Your task to perform on an android device: Show me popular videos on Youtube Image 0: 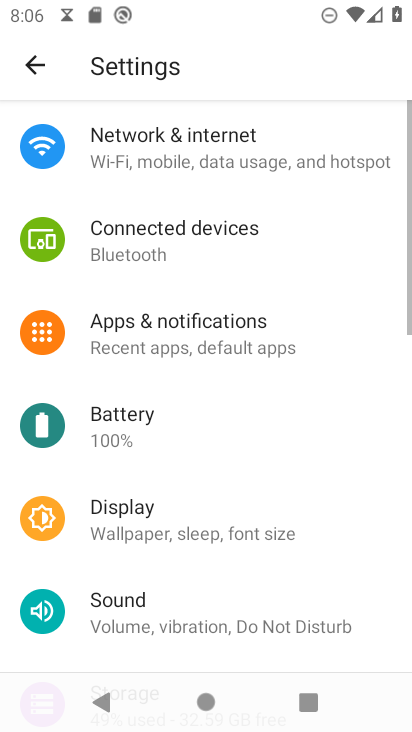
Step 0: press back button
Your task to perform on an android device: Show me popular videos on Youtube Image 1: 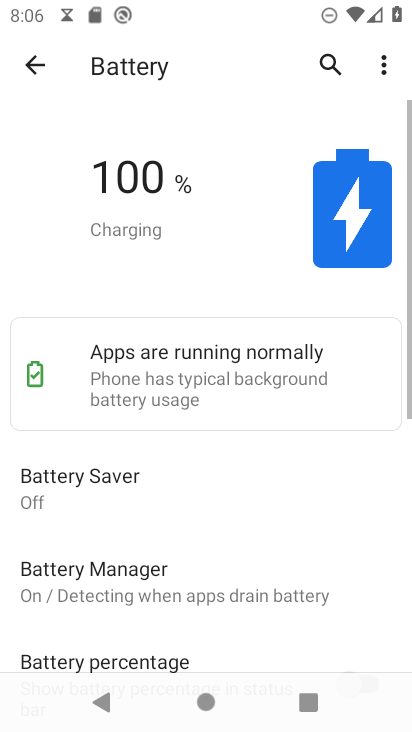
Step 1: press home button
Your task to perform on an android device: Show me popular videos on Youtube Image 2: 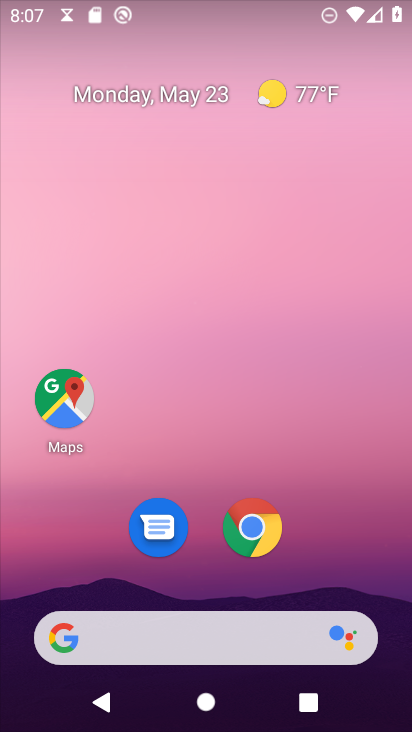
Step 2: drag from (273, 651) to (247, 46)
Your task to perform on an android device: Show me popular videos on Youtube Image 3: 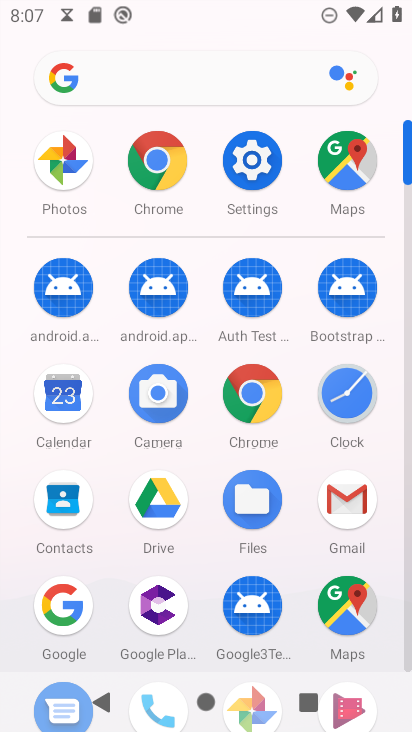
Step 3: drag from (291, 543) to (257, 198)
Your task to perform on an android device: Show me popular videos on Youtube Image 4: 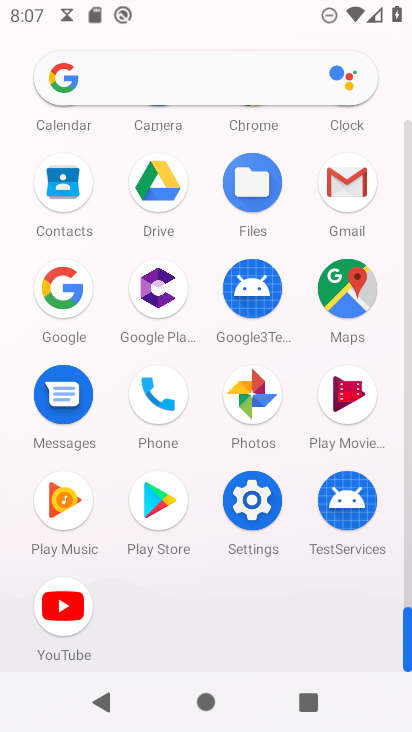
Step 4: click (73, 606)
Your task to perform on an android device: Show me popular videos on Youtube Image 5: 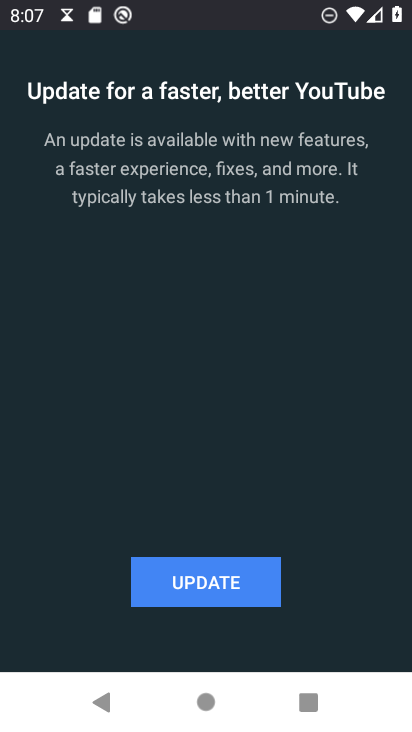
Step 5: click (203, 578)
Your task to perform on an android device: Show me popular videos on Youtube Image 6: 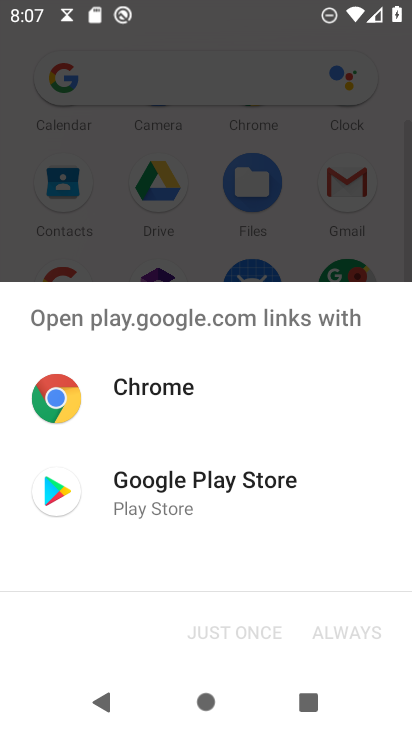
Step 6: click (234, 482)
Your task to perform on an android device: Show me popular videos on Youtube Image 7: 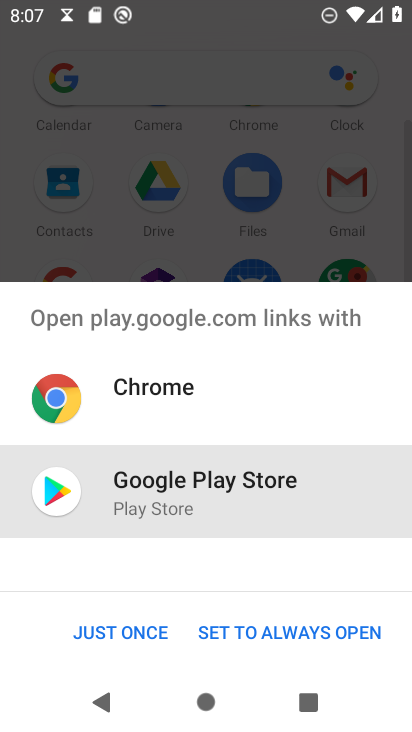
Step 7: click (108, 626)
Your task to perform on an android device: Show me popular videos on Youtube Image 8: 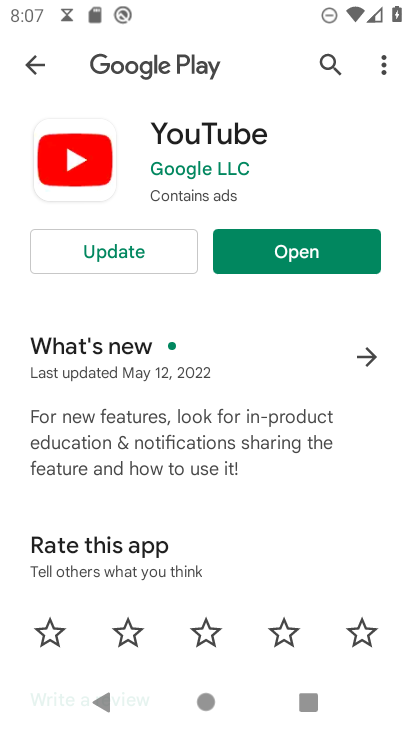
Step 8: click (140, 251)
Your task to perform on an android device: Show me popular videos on Youtube Image 9: 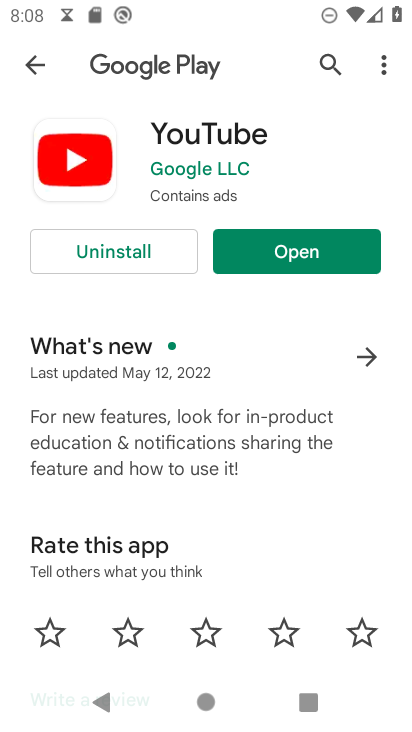
Step 9: click (317, 257)
Your task to perform on an android device: Show me popular videos on Youtube Image 10: 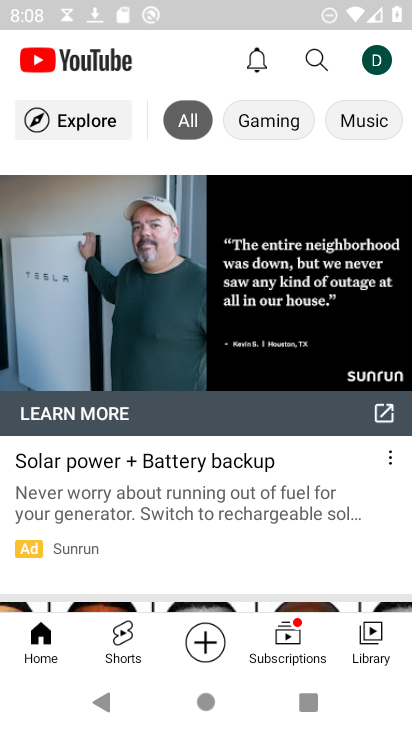
Step 10: click (314, 63)
Your task to perform on an android device: Show me popular videos on Youtube Image 11: 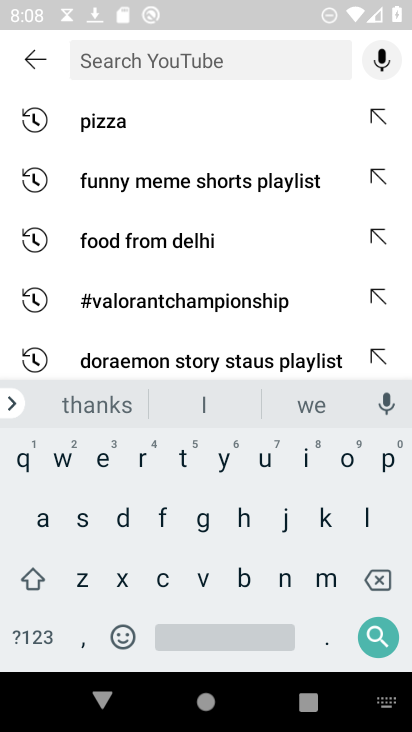
Step 11: click (388, 460)
Your task to perform on an android device: Show me popular videos on Youtube Image 12: 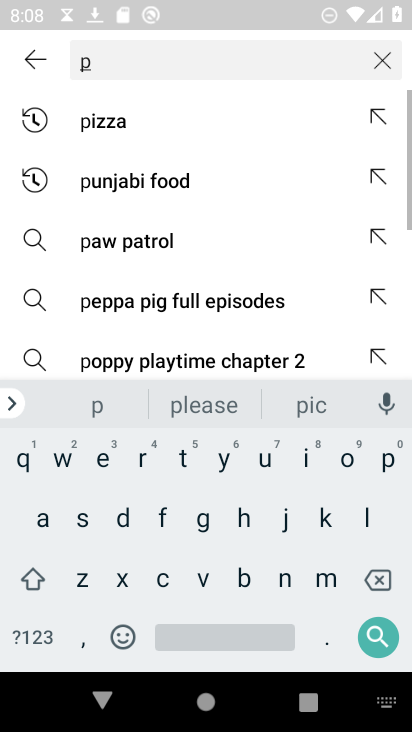
Step 12: click (343, 461)
Your task to perform on an android device: Show me popular videos on Youtube Image 13: 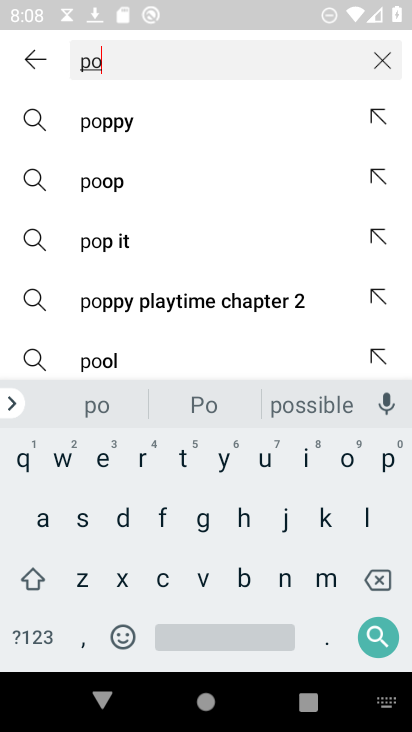
Step 13: click (383, 459)
Your task to perform on an android device: Show me popular videos on Youtube Image 14: 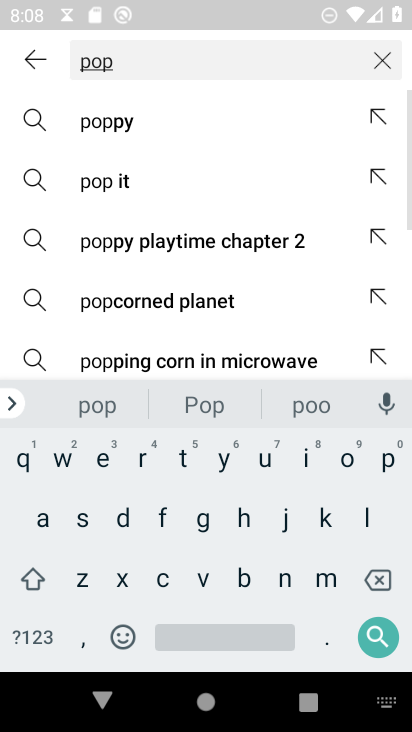
Step 14: click (258, 461)
Your task to perform on an android device: Show me popular videos on Youtube Image 15: 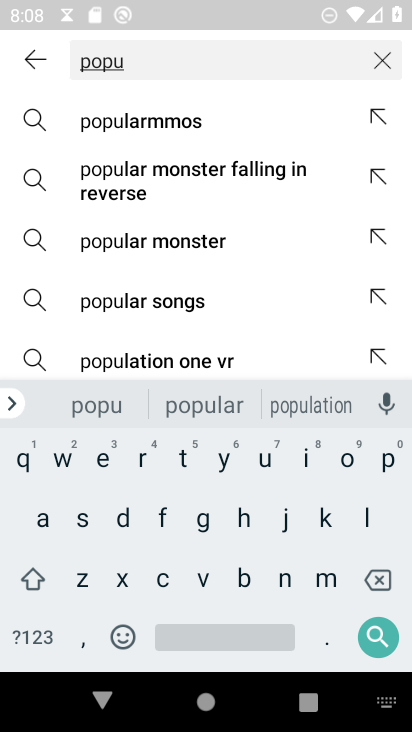
Step 15: click (207, 406)
Your task to perform on an android device: Show me popular videos on Youtube Image 16: 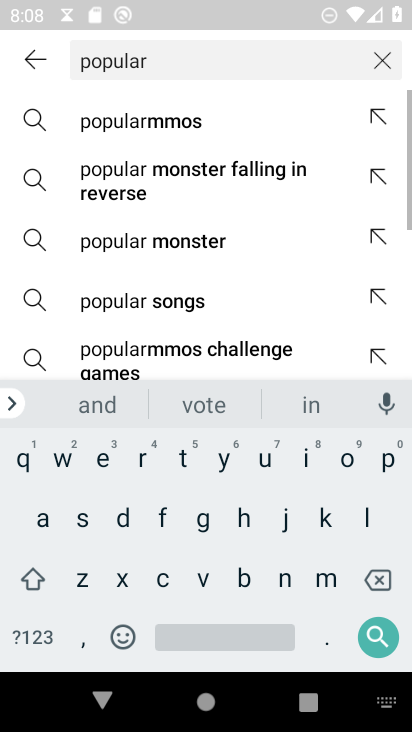
Step 16: click (203, 582)
Your task to perform on an android device: Show me popular videos on Youtube Image 17: 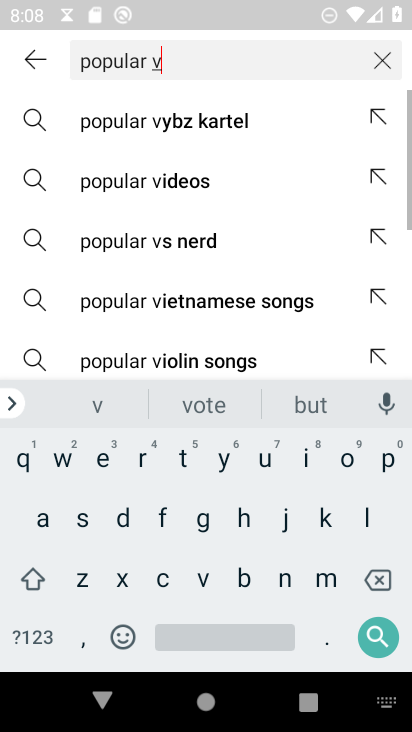
Step 17: click (195, 184)
Your task to perform on an android device: Show me popular videos on Youtube Image 18: 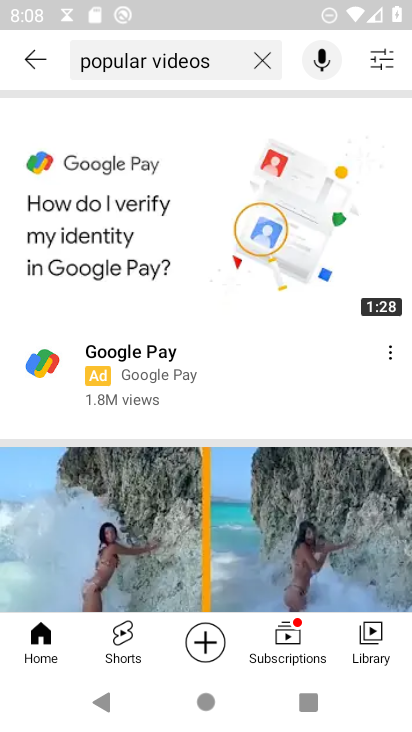
Step 18: task complete